Your task to perform on an android device: refresh tabs in the chrome app Image 0: 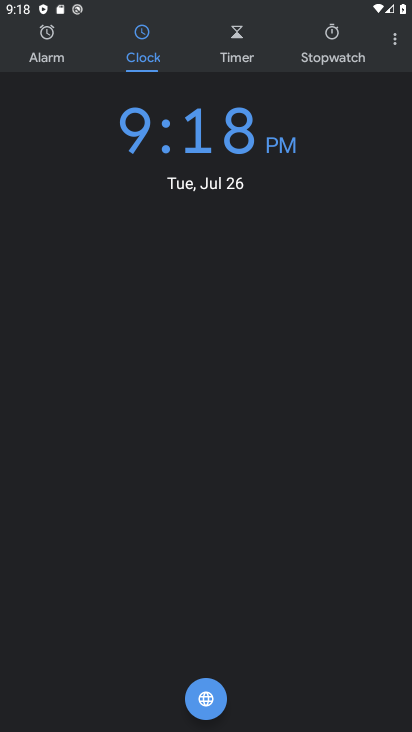
Step 0: press home button
Your task to perform on an android device: refresh tabs in the chrome app Image 1: 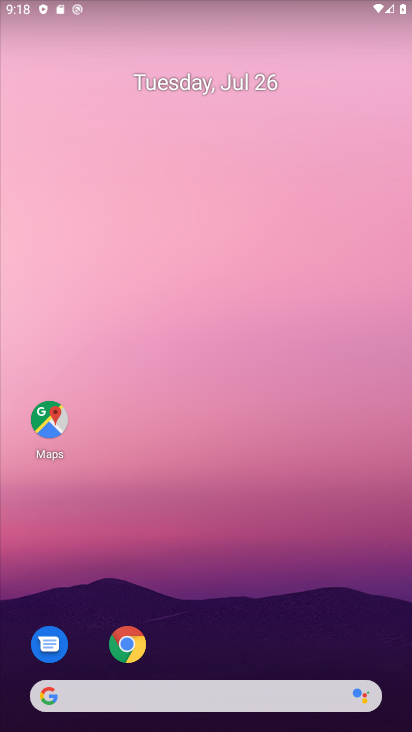
Step 1: drag from (230, 598) to (245, 142)
Your task to perform on an android device: refresh tabs in the chrome app Image 2: 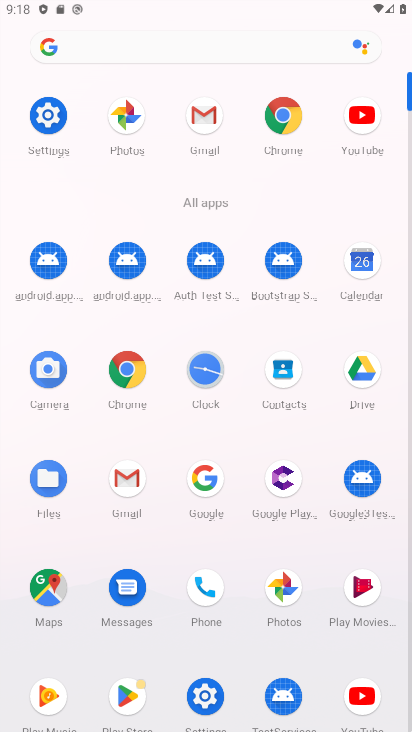
Step 2: click (125, 377)
Your task to perform on an android device: refresh tabs in the chrome app Image 3: 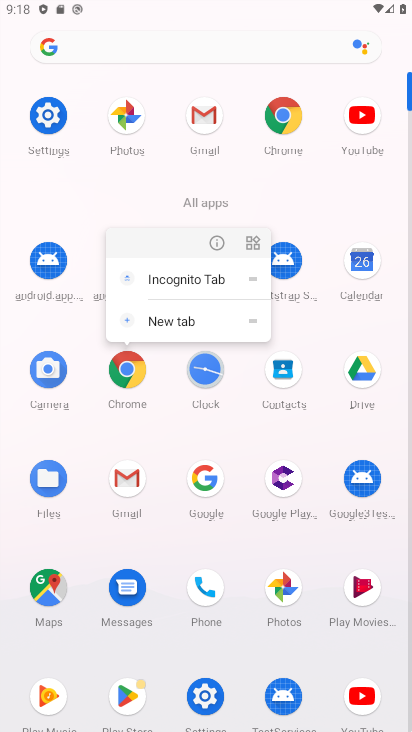
Step 3: click (120, 397)
Your task to perform on an android device: refresh tabs in the chrome app Image 4: 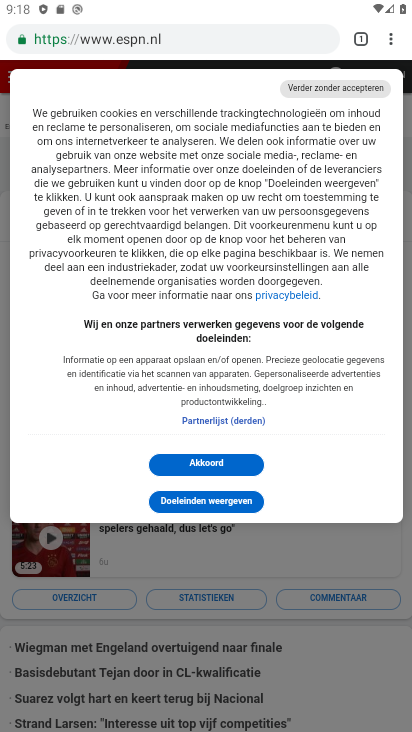
Step 4: click (391, 46)
Your task to perform on an android device: refresh tabs in the chrome app Image 5: 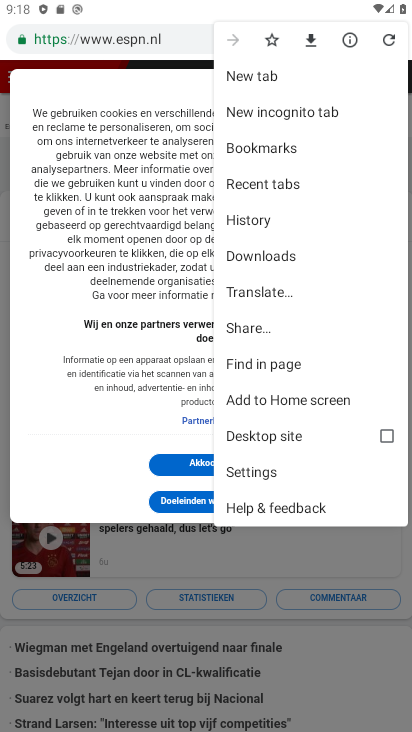
Step 5: click (386, 37)
Your task to perform on an android device: refresh tabs in the chrome app Image 6: 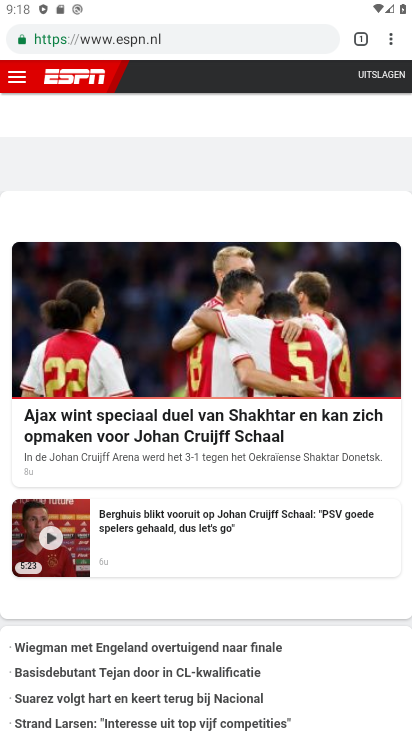
Step 6: task complete